Your task to perform on an android device: See recent photos Image 0: 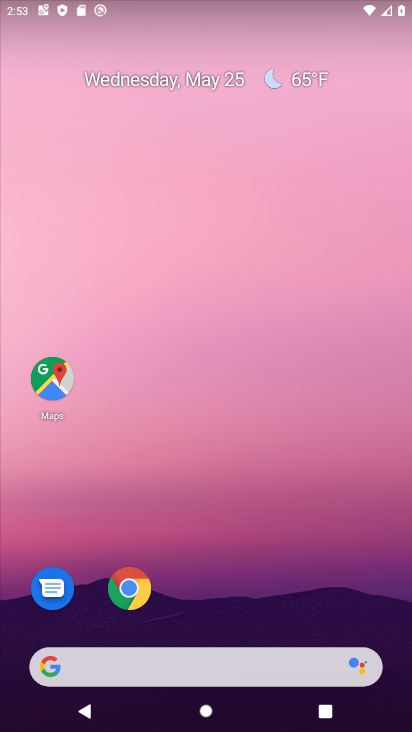
Step 0: drag from (195, 592) to (264, 281)
Your task to perform on an android device: See recent photos Image 1: 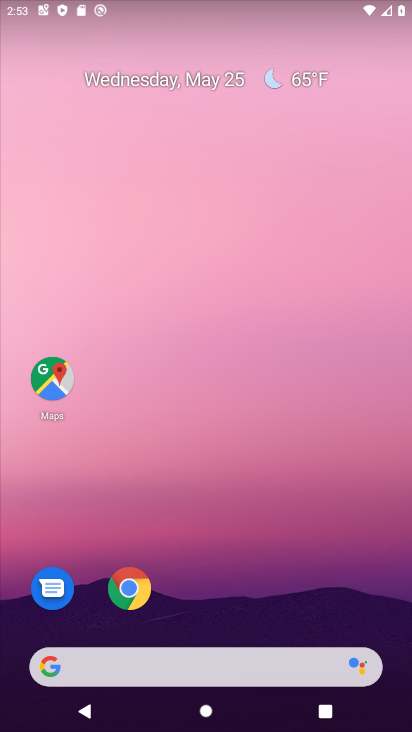
Step 1: drag from (215, 594) to (267, 136)
Your task to perform on an android device: See recent photos Image 2: 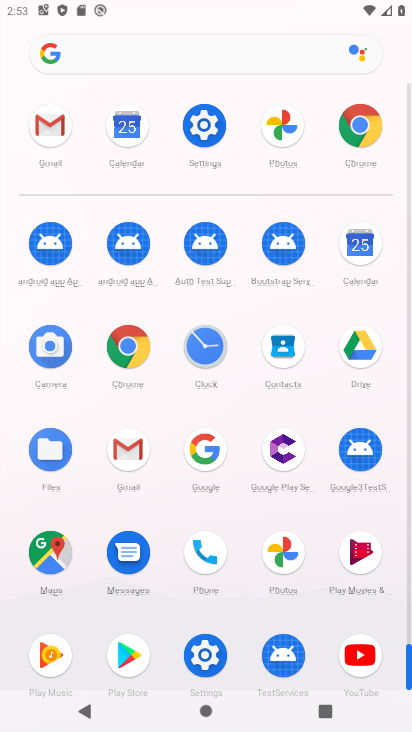
Step 2: click (269, 127)
Your task to perform on an android device: See recent photos Image 3: 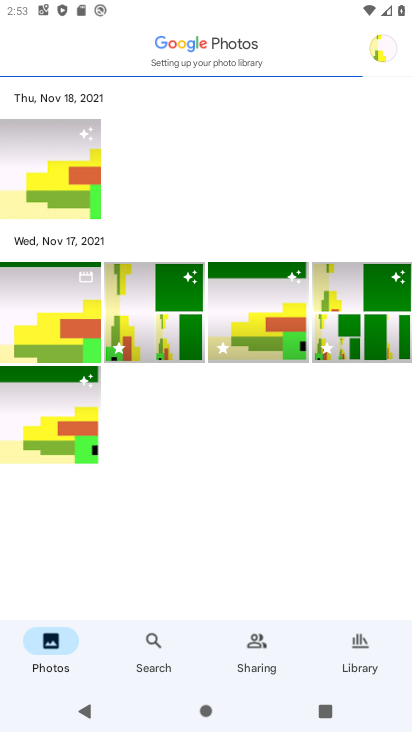
Step 3: task complete